Your task to perform on an android device: Open Reddit.com Image 0: 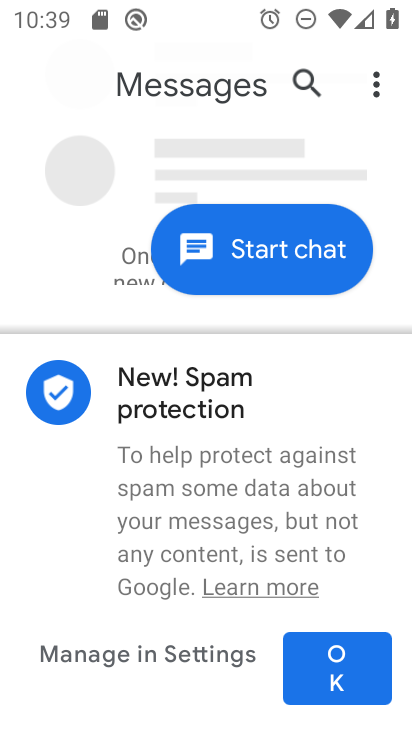
Step 0: press home button
Your task to perform on an android device: Open Reddit.com Image 1: 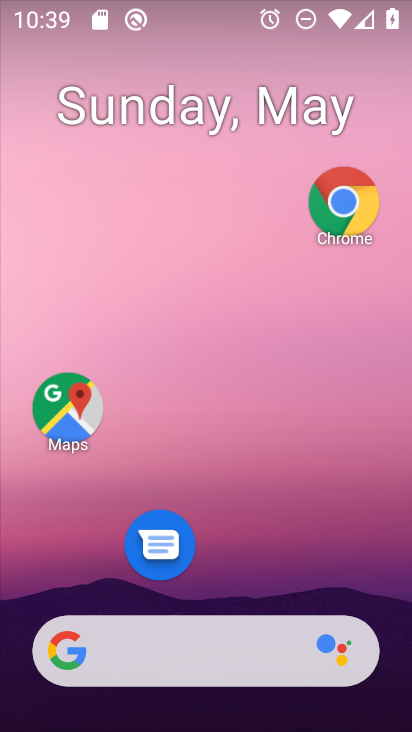
Step 1: click (372, 202)
Your task to perform on an android device: Open Reddit.com Image 2: 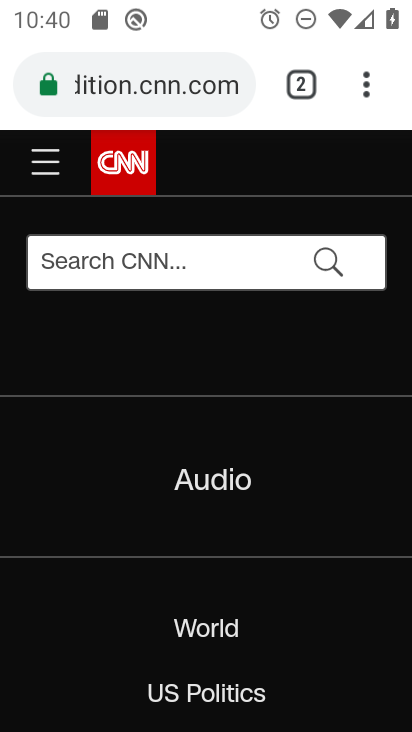
Step 2: click (358, 81)
Your task to perform on an android device: Open Reddit.com Image 3: 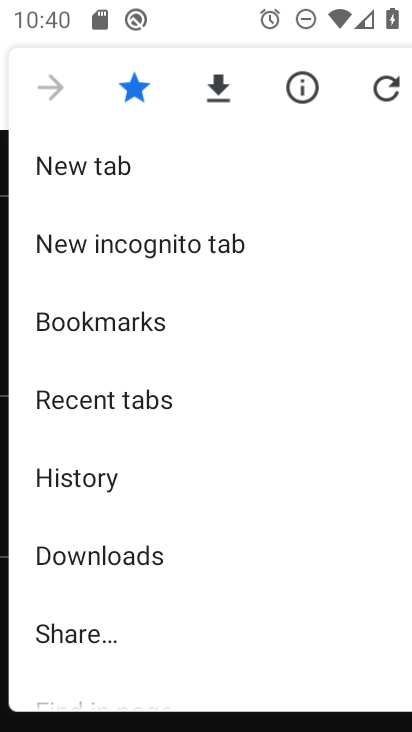
Step 3: click (99, 164)
Your task to perform on an android device: Open Reddit.com Image 4: 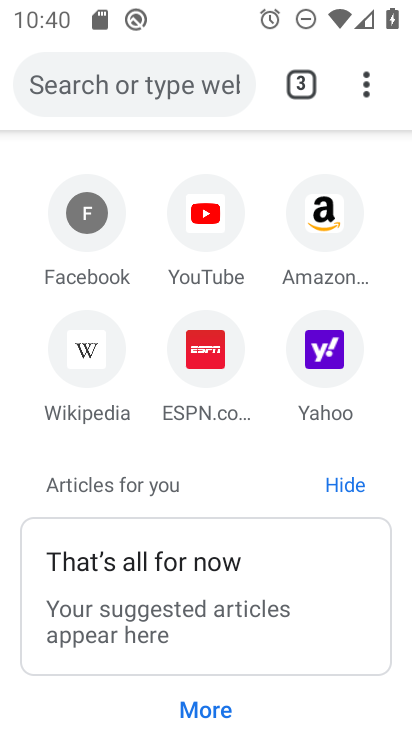
Step 4: click (195, 83)
Your task to perform on an android device: Open Reddit.com Image 5: 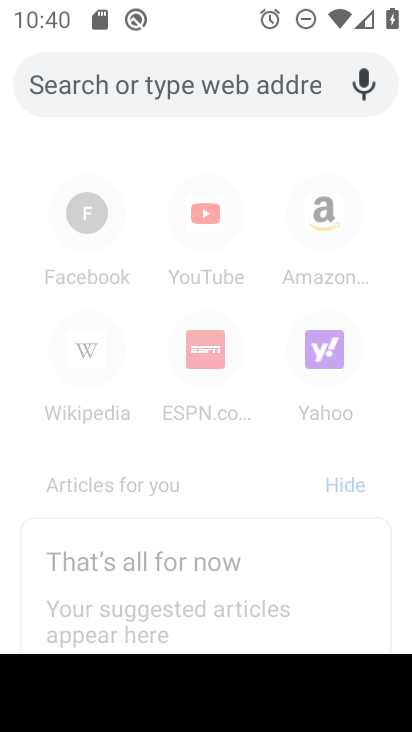
Step 5: type "Reddit.com"
Your task to perform on an android device: Open Reddit.com Image 6: 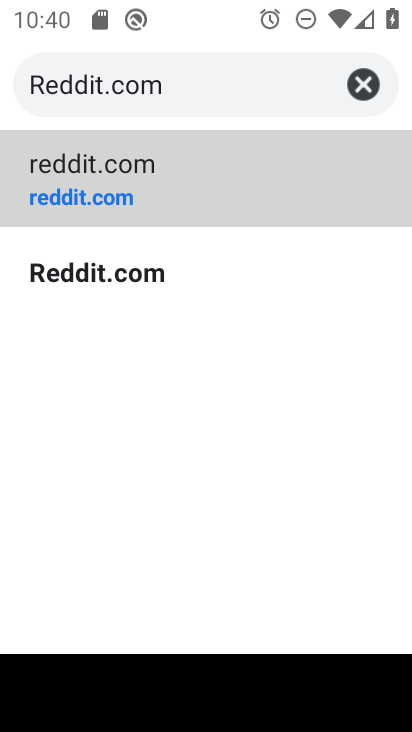
Step 6: click (190, 205)
Your task to perform on an android device: Open Reddit.com Image 7: 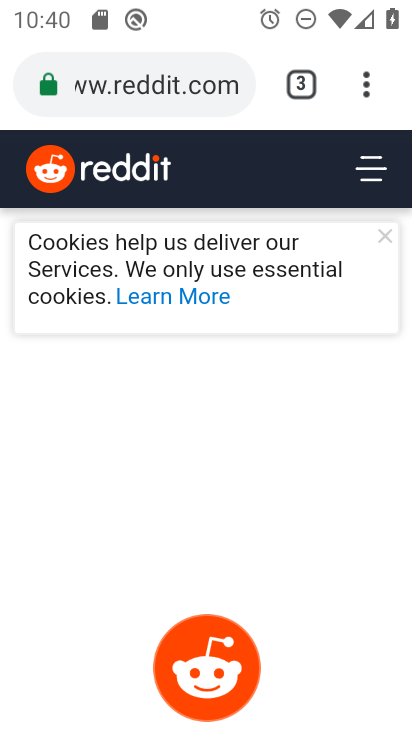
Step 7: task complete